Your task to perform on an android device: turn off wifi Image 0: 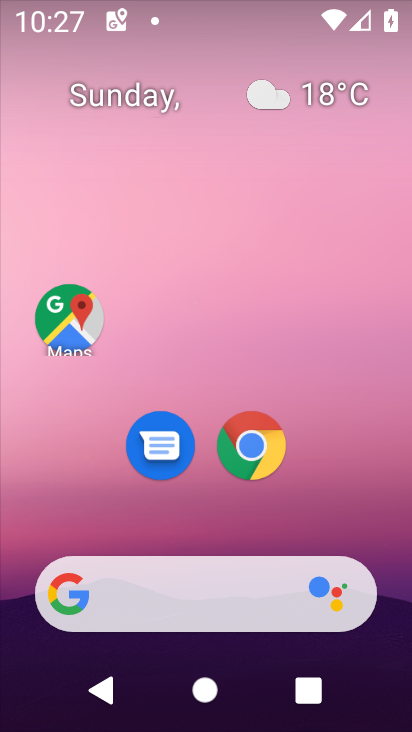
Step 0: press home button
Your task to perform on an android device: turn off wifi Image 1: 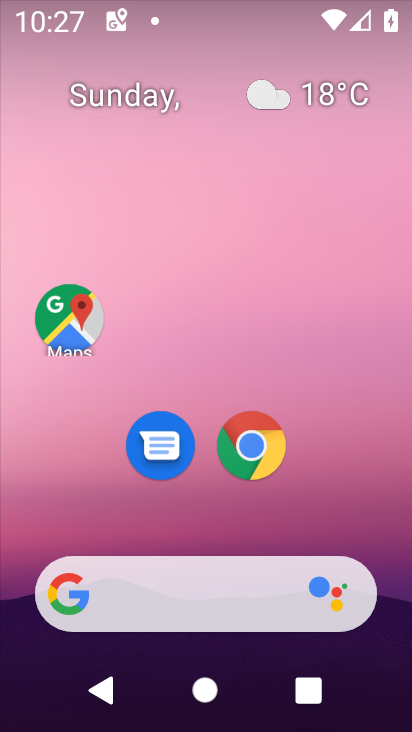
Step 1: drag from (227, 4) to (227, 481)
Your task to perform on an android device: turn off wifi Image 2: 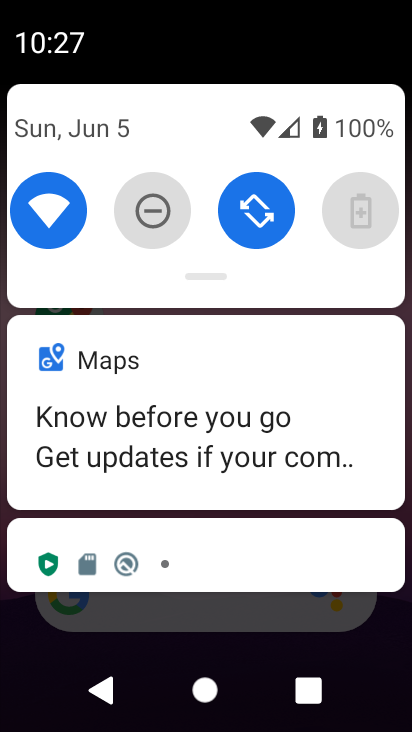
Step 2: click (50, 203)
Your task to perform on an android device: turn off wifi Image 3: 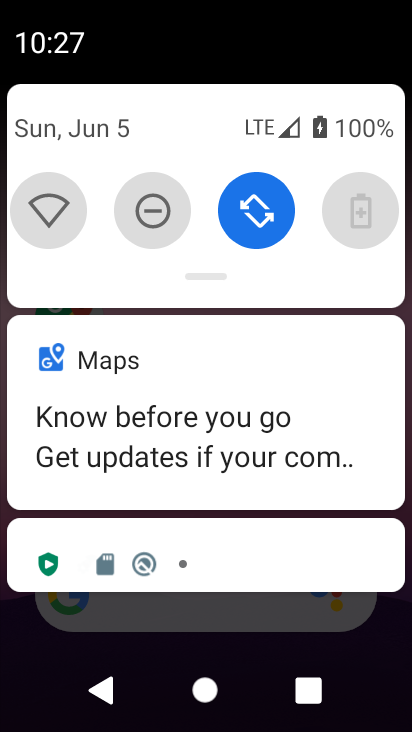
Step 3: task complete